Your task to perform on an android device: check the backup settings in the google photos Image 0: 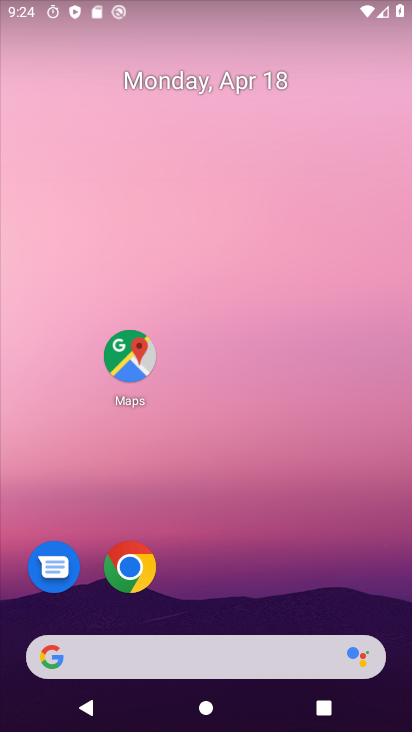
Step 0: click (336, 219)
Your task to perform on an android device: check the backup settings in the google photos Image 1: 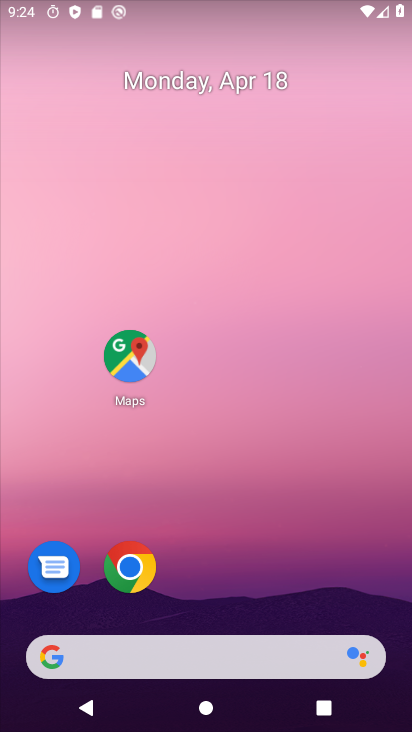
Step 1: drag from (247, 647) to (361, 215)
Your task to perform on an android device: check the backup settings in the google photos Image 2: 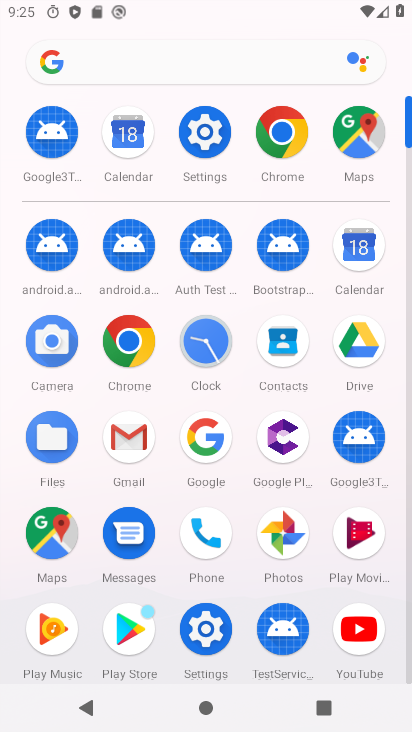
Step 2: click (286, 539)
Your task to perform on an android device: check the backup settings in the google photos Image 3: 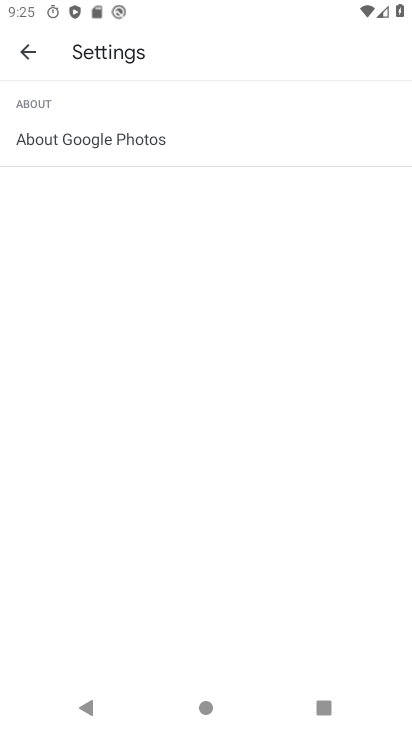
Step 3: press home button
Your task to perform on an android device: check the backup settings in the google photos Image 4: 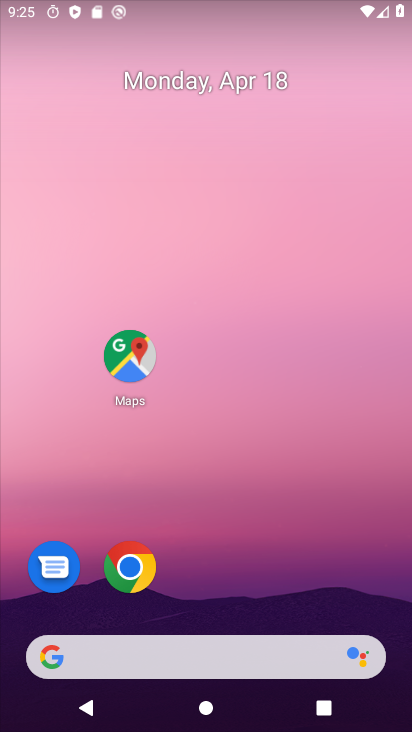
Step 4: drag from (244, 672) to (331, 274)
Your task to perform on an android device: check the backup settings in the google photos Image 5: 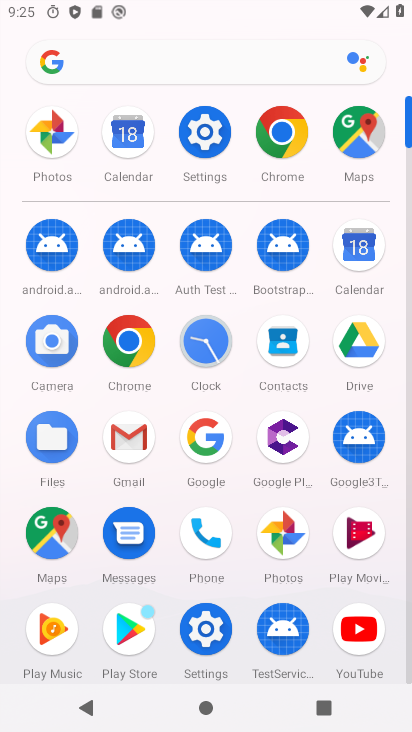
Step 5: click (274, 538)
Your task to perform on an android device: check the backup settings in the google photos Image 6: 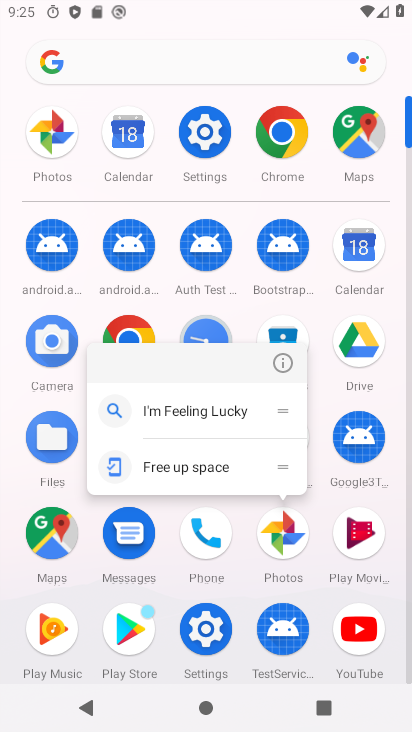
Step 6: click (287, 534)
Your task to perform on an android device: check the backup settings in the google photos Image 7: 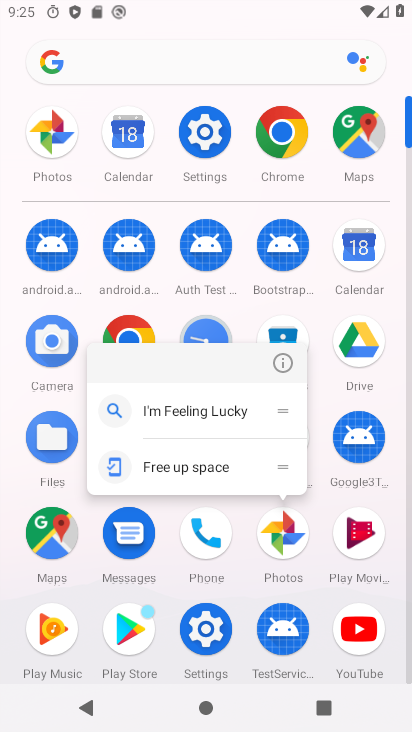
Step 7: click (283, 528)
Your task to perform on an android device: check the backup settings in the google photos Image 8: 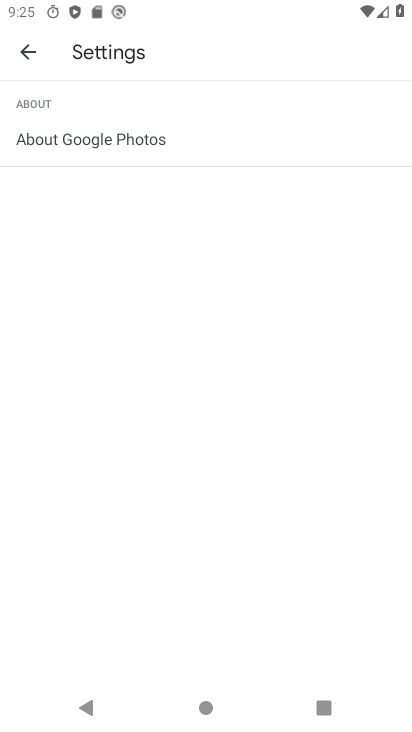
Step 8: click (125, 139)
Your task to perform on an android device: check the backup settings in the google photos Image 9: 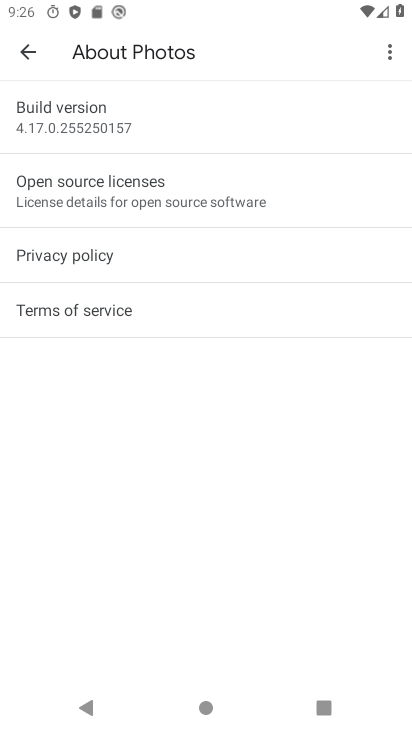
Step 9: click (21, 61)
Your task to perform on an android device: check the backup settings in the google photos Image 10: 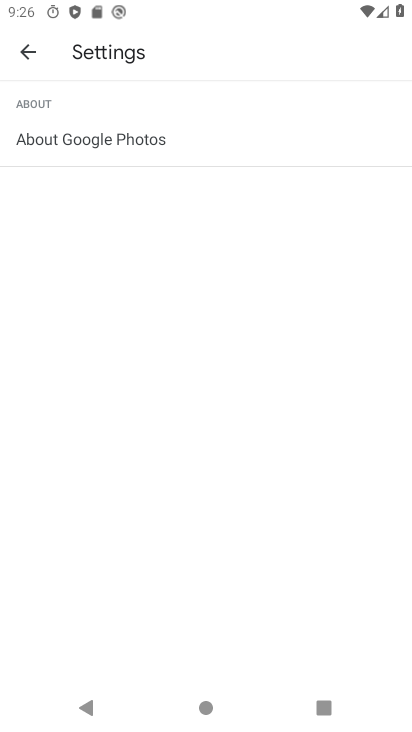
Step 10: click (38, 64)
Your task to perform on an android device: check the backup settings in the google photos Image 11: 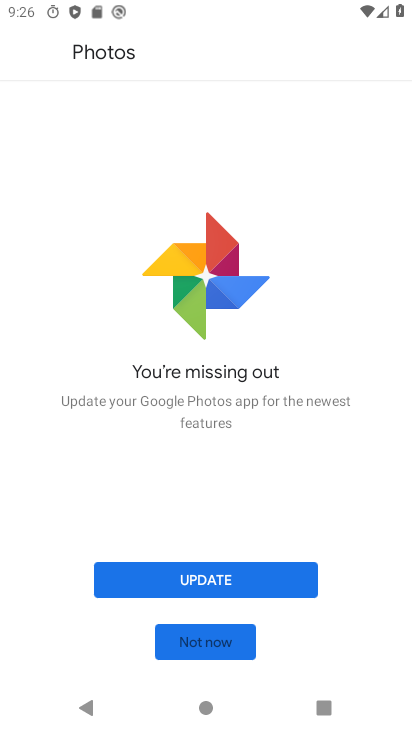
Step 11: click (240, 645)
Your task to perform on an android device: check the backup settings in the google photos Image 12: 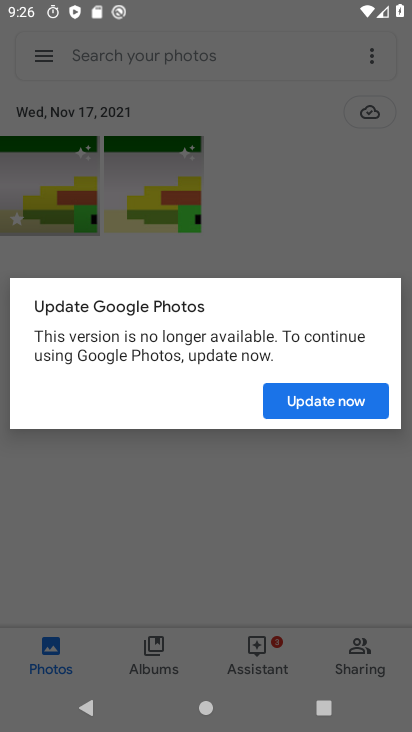
Step 12: click (327, 409)
Your task to perform on an android device: check the backup settings in the google photos Image 13: 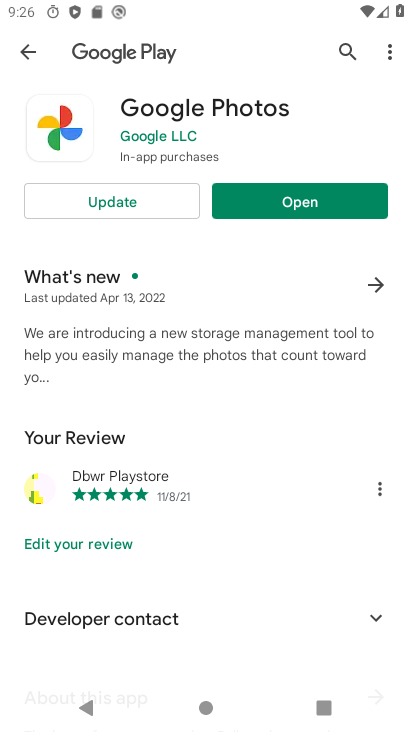
Step 13: click (302, 193)
Your task to perform on an android device: check the backup settings in the google photos Image 14: 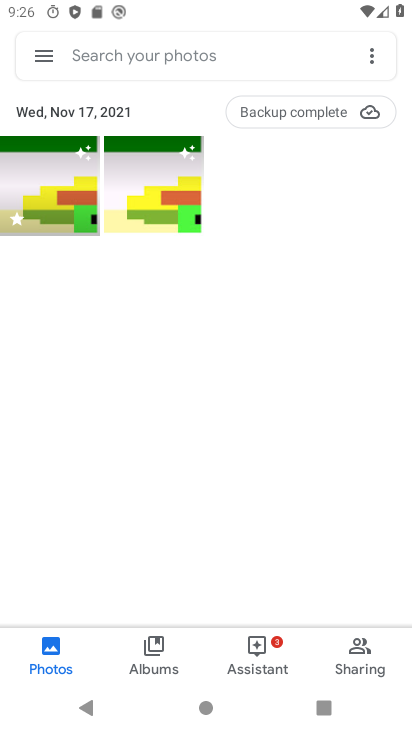
Step 14: task complete